Your task to perform on an android device: toggle wifi Image 0: 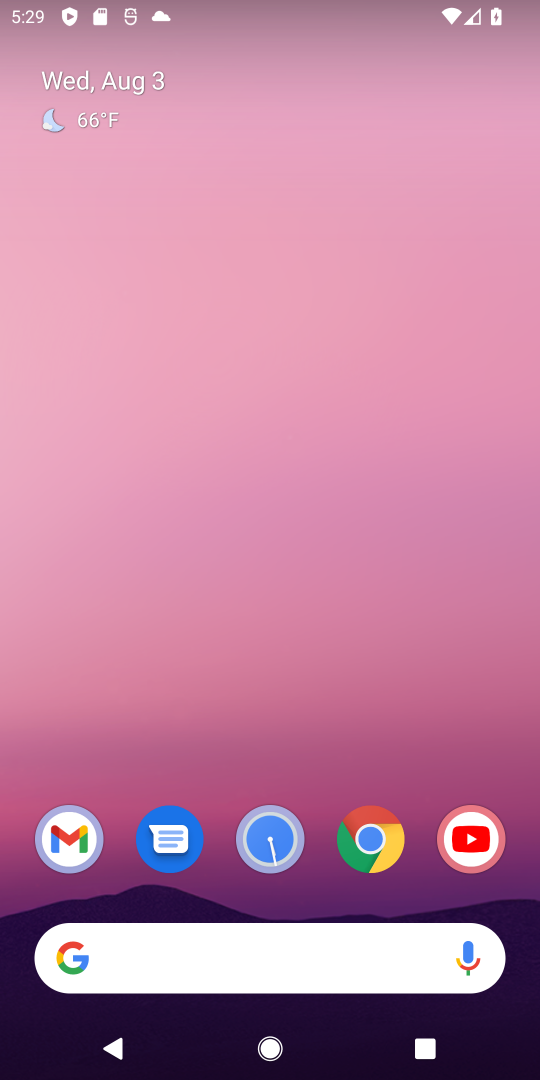
Step 0: drag from (189, 15) to (267, 1014)
Your task to perform on an android device: toggle wifi Image 1: 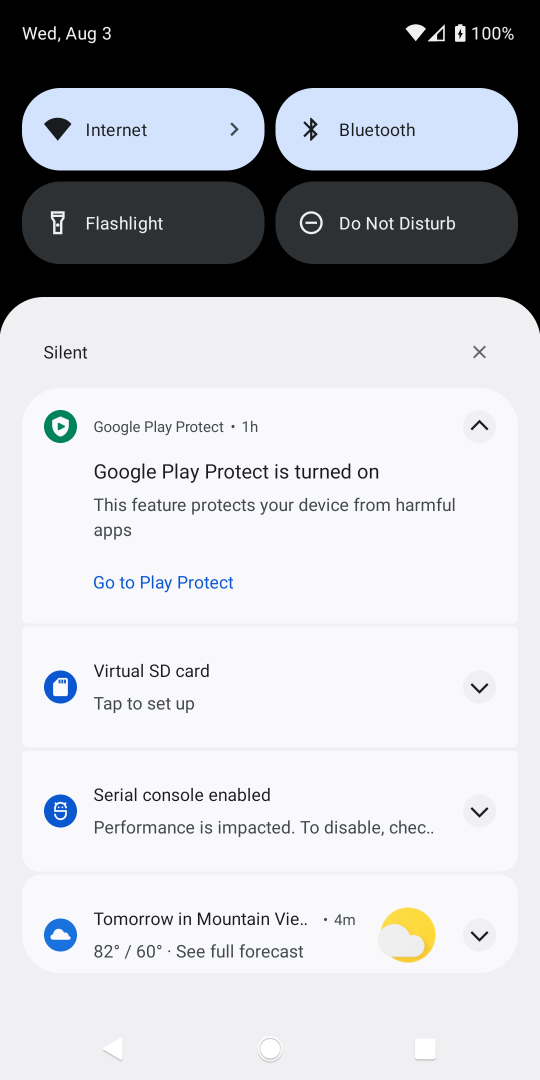
Step 1: click (105, 124)
Your task to perform on an android device: toggle wifi Image 2: 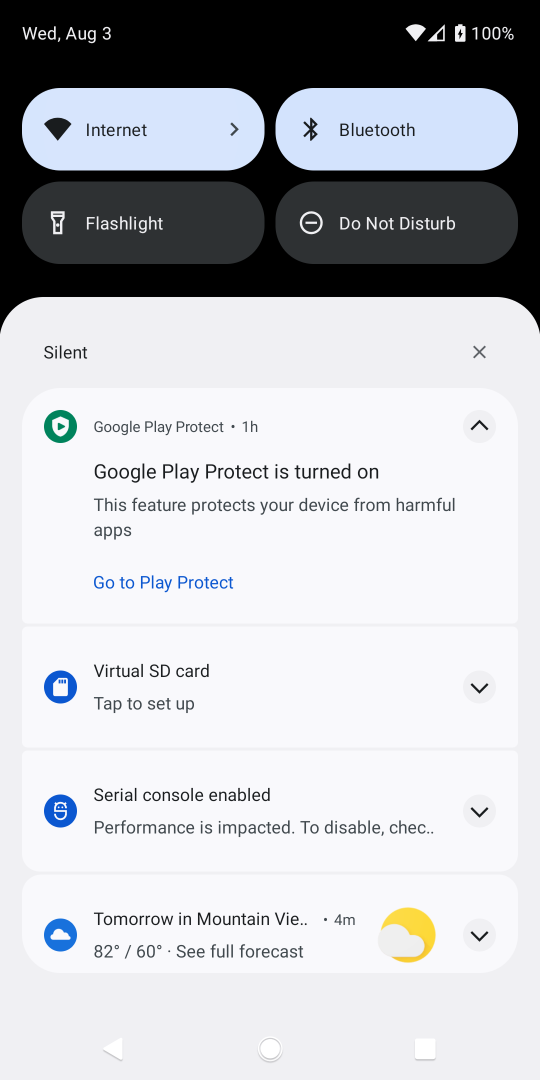
Step 2: task complete